Your task to perform on an android device: Go to calendar. Show me events next week Image 0: 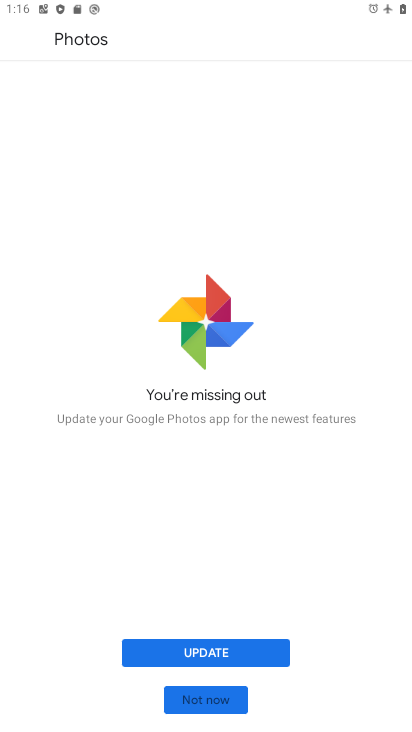
Step 0: press home button
Your task to perform on an android device: Go to calendar. Show me events next week Image 1: 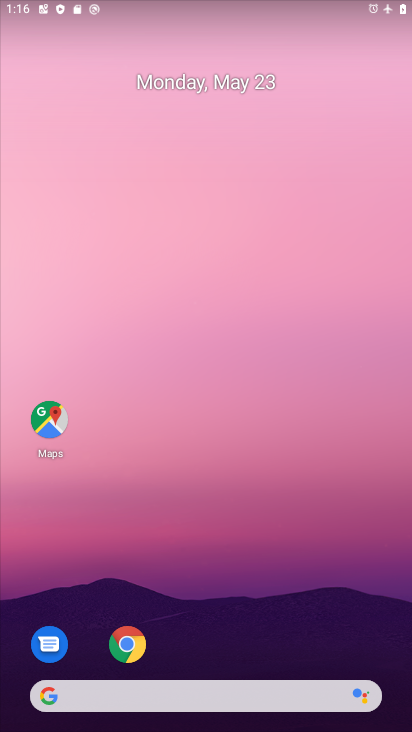
Step 1: drag from (354, 638) to (277, 209)
Your task to perform on an android device: Go to calendar. Show me events next week Image 2: 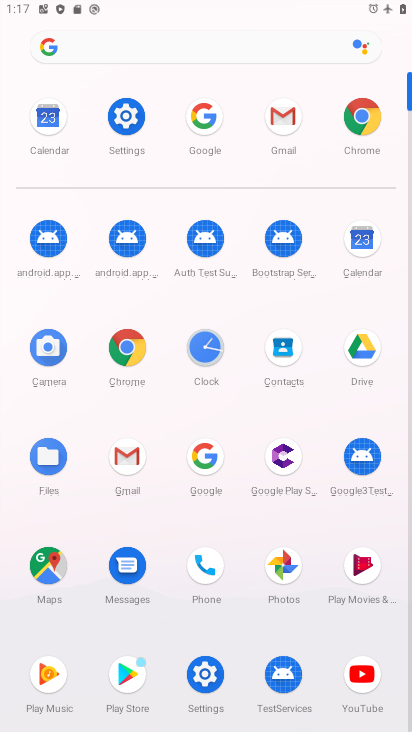
Step 2: click (356, 233)
Your task to perform on an android device: Go to calendar. Show me events next week Image 3: 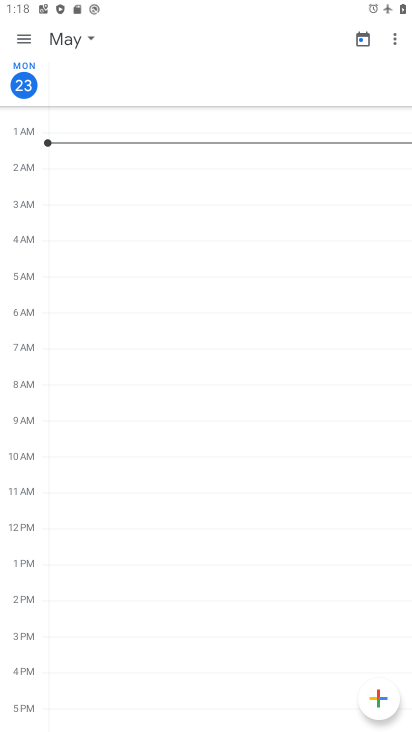
Step 3: press home button
Your task to perform on an android device: Go to calendar. Show me events next week Image 4: 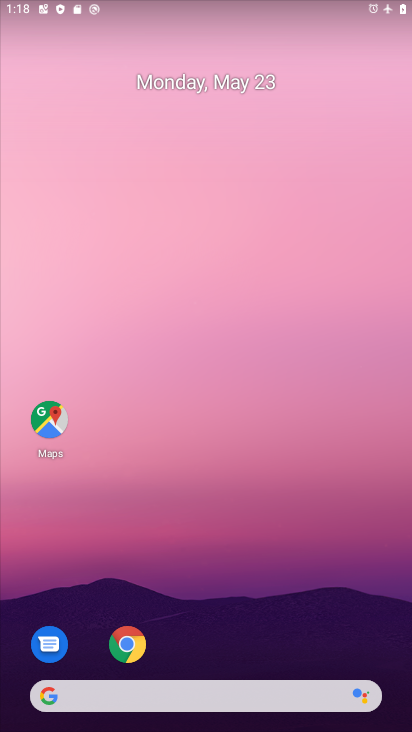
Step 4: drag from (342, 623) to (304, 37)
Your task to perform on an android device: Go to calendar. Show me events next week Image 5: 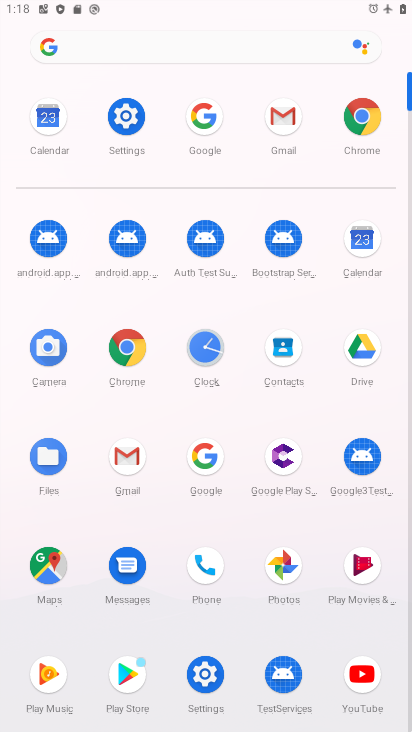
Step 5: click (345, 256)
Your task to perform on an android device: Go to calendar. Show me events next week Image 6: 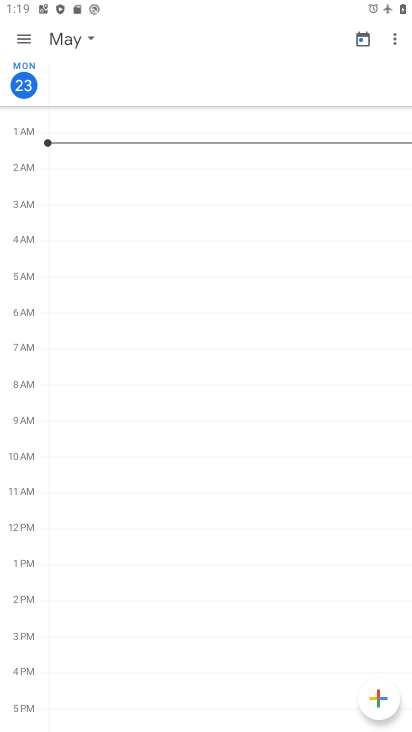
Step 6: task complete